Your task to perform on an android device: read, delete, or share a saved page in the chrome app Image 0: 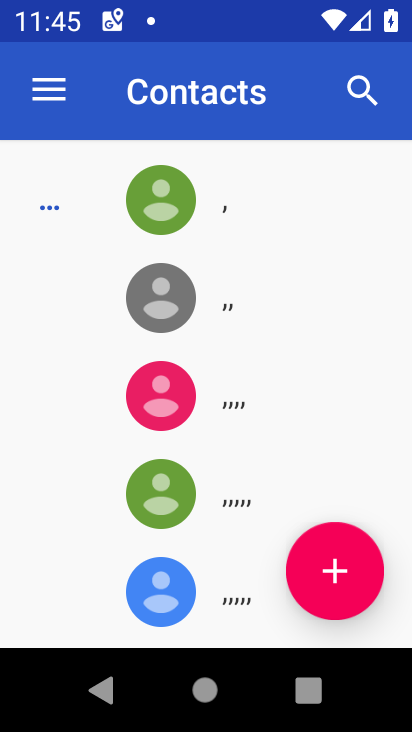
Step 0: press back button
Your task to perform on an android device: read, delete, or share a saved page in the chrome app Image 1: 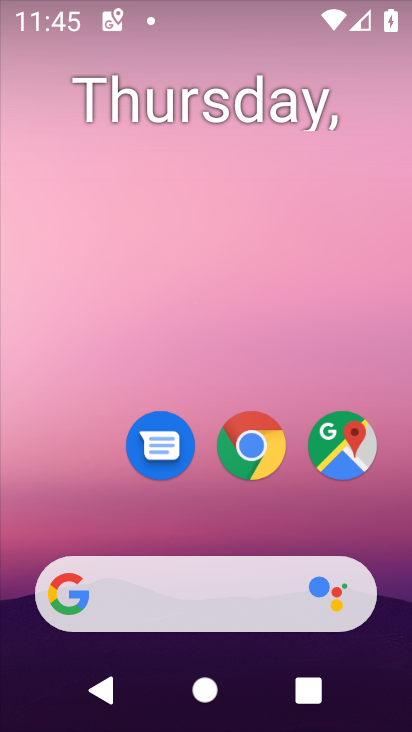
Step 1: drag from (380, 681) to (218, 121)
Your task to perform on an android device: read, delete, or share a saved page in the chrome app Image 2: 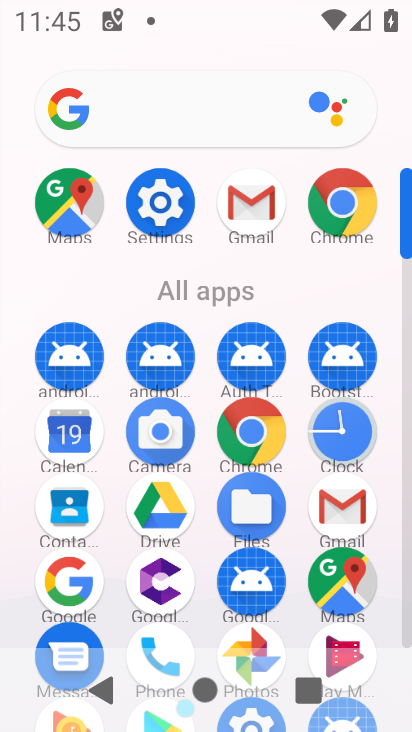
Step 2: click (329, 203)
Your task to perform on an android device: read, delete, or share a saved page in the chrome app Image 3: 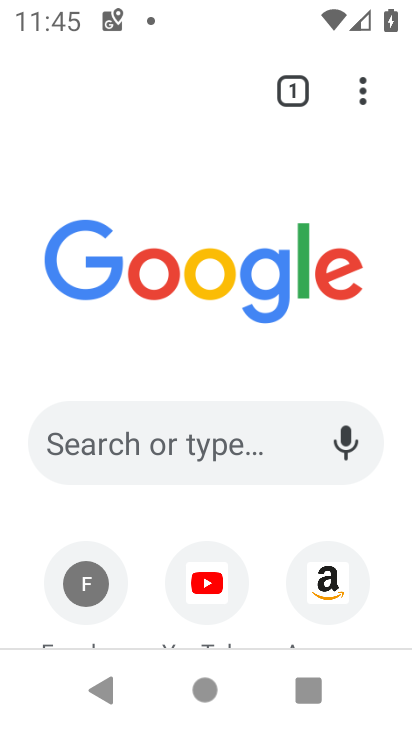
Step 3: click (365, 98)
Your task to perform on an android device: read, delete, or share a saved page in the chrome app Image 4: 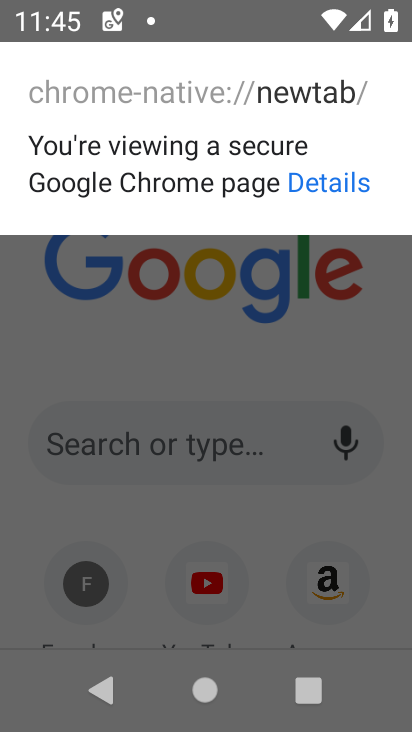
Step 4: click (284, 351)
Your task to perform on an android device: read, delete, or share a saved page in the chrome app Image 5: 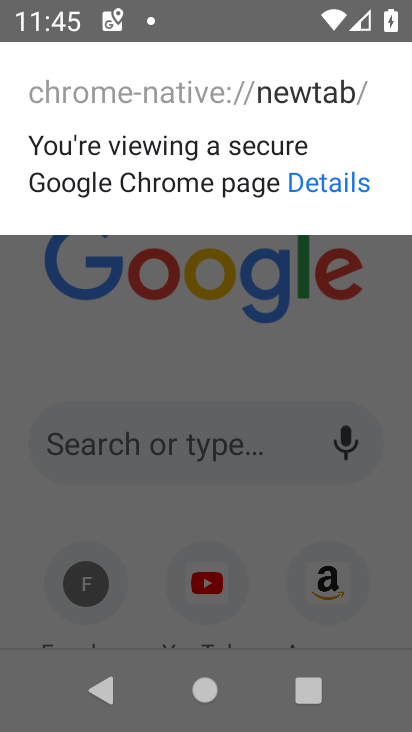
Step 5: click (284, 351)
Your task to perform on an android device: read, delete, or share a saved page in the chrome app Image 6: 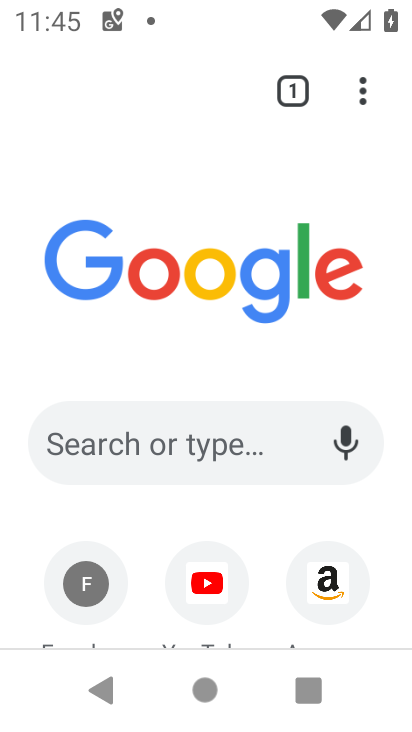
Step 6: click (284, 351)
Your task to perform on an android device: read, delete, or share a saved page in the chrome app Image 7: 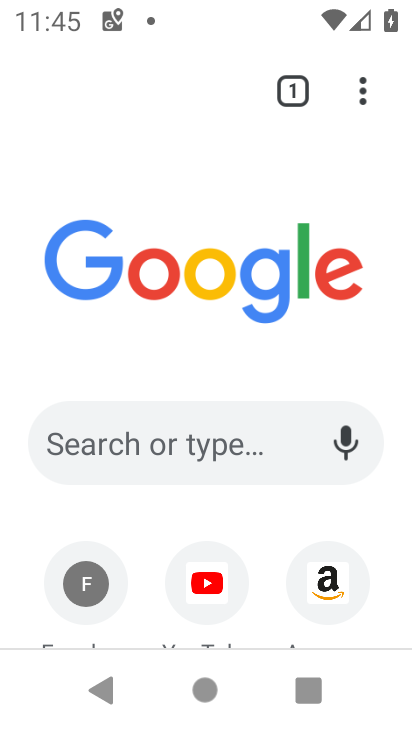
Step 7: drag from (354, 88) to (102, 302)
Your task to perform on an android device: read, delete, or share a saved page in the chrome app Image 8: 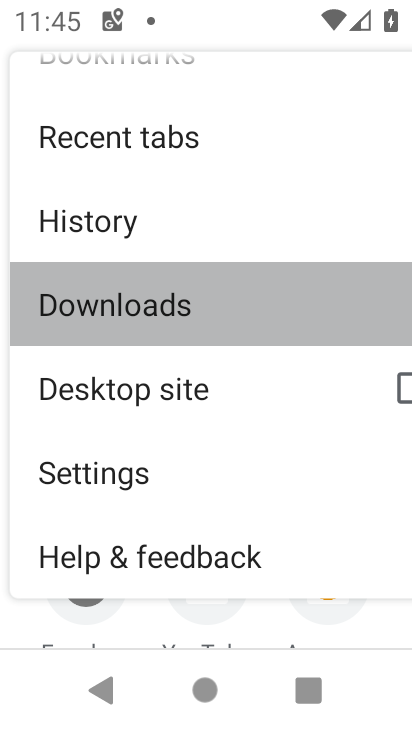
Step 8: click (102, 302)
Your task to perform on an android device: read, delete, or share a saved page in the chrome app Image 9: 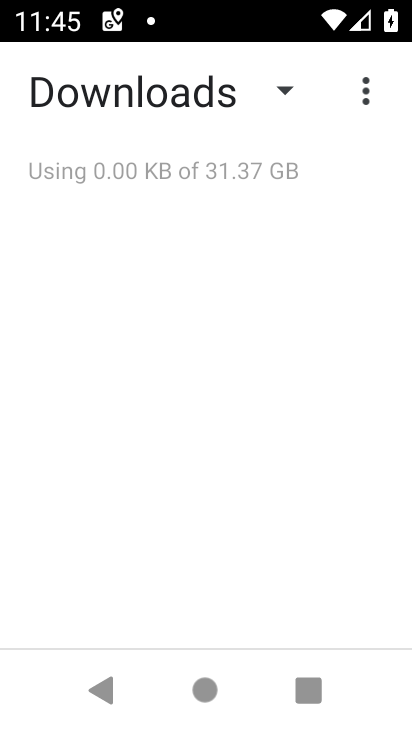
Step 9: click (286, 86)
Your task to perform on an android device: read, delete, or share a saved page in the chrome app Image 10: 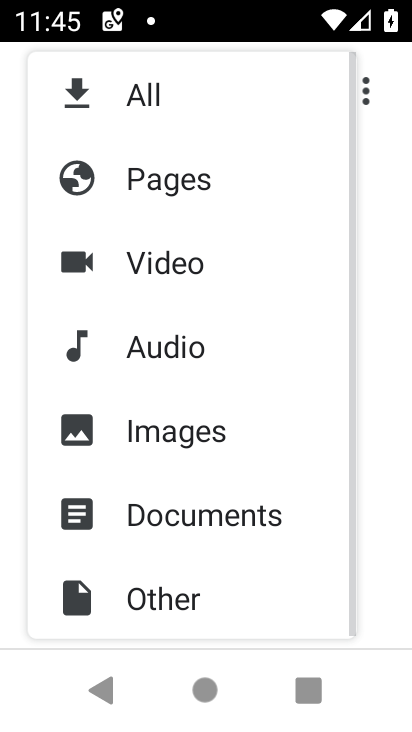
Step 10: click (184, 252)
Your task to perform on an android device: read, delete, or share a saved page in the chrome app Image 11: 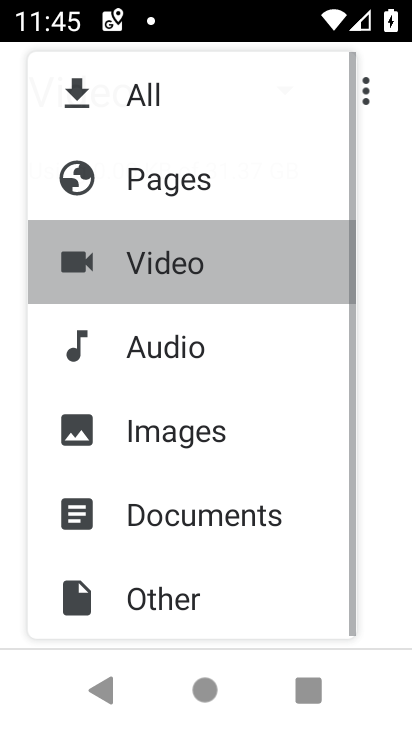
Step 11: click (160, 186)
Your task to perform on an android device: read, delete, or share a saved page in the chrome app Image 12: 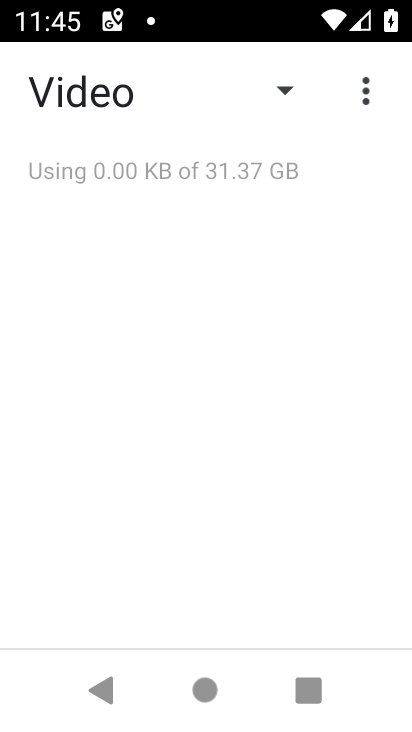
Step 12: click (160, 186)
Your task to perform on an android device: read, delete, or share a saved page in the chrome app Image 13: 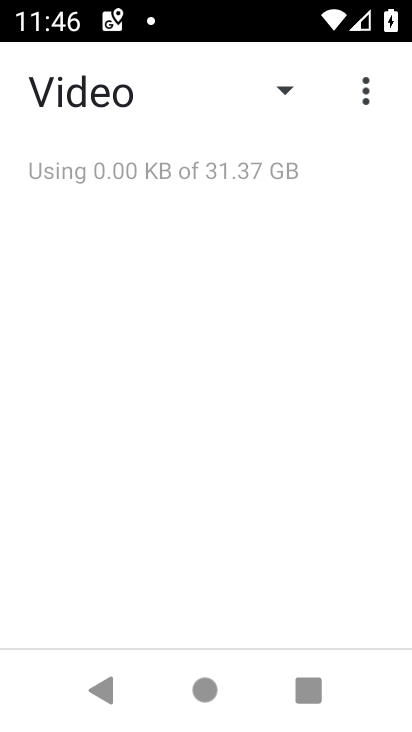
Step 13: task complete